Your task to perform on an android device: delete browsing data in the chrome app Image 0: 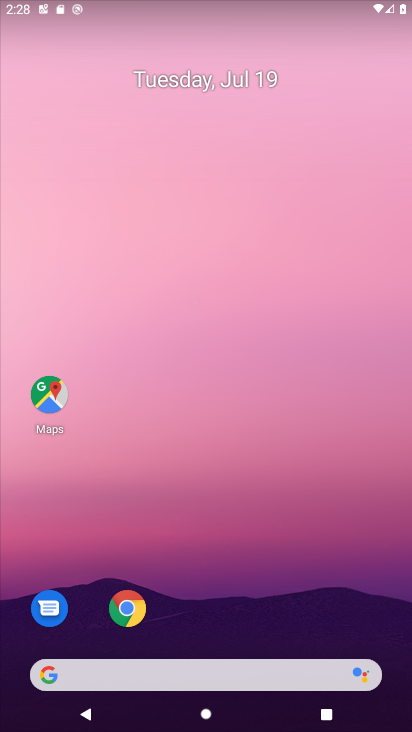
Step 0: click (124, 615)
Your task to perform on an android device: delete browsing data in the chrome app Image 1: 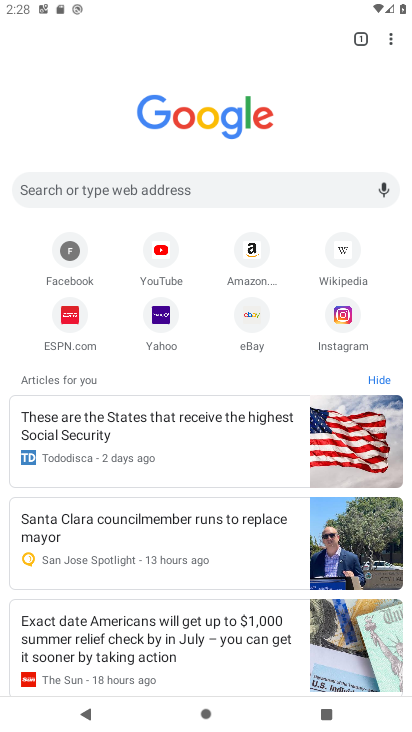
Step 1: click (390, 46)
Your task to perform on an android device: delete browsing data in the chrome app Image 2: 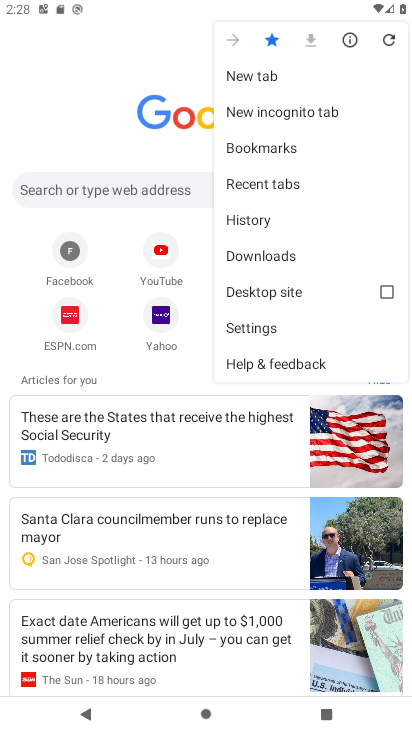
Step 2: click (238, 219)
Your task to perform on an android device: delete browsing data in the chrome app Image 3: 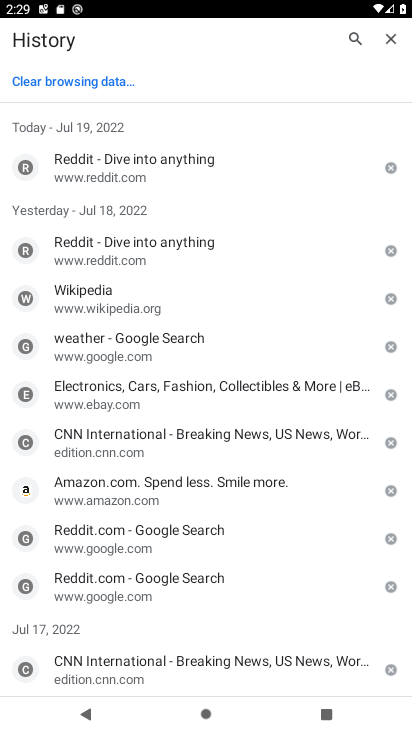
Step 3: click (78, 80)
Your task to perform on an android device: delete browsing data in the chrome app Image 4: 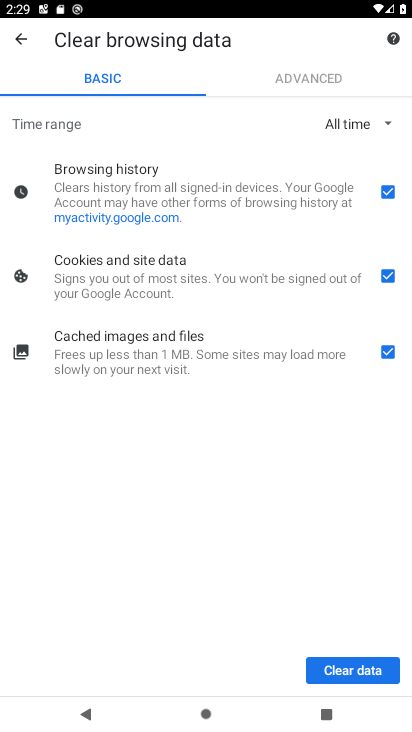
Step 4: click (365, 667)
Your task to perform on an android device: delete browsing data in the chrome app Image 5: 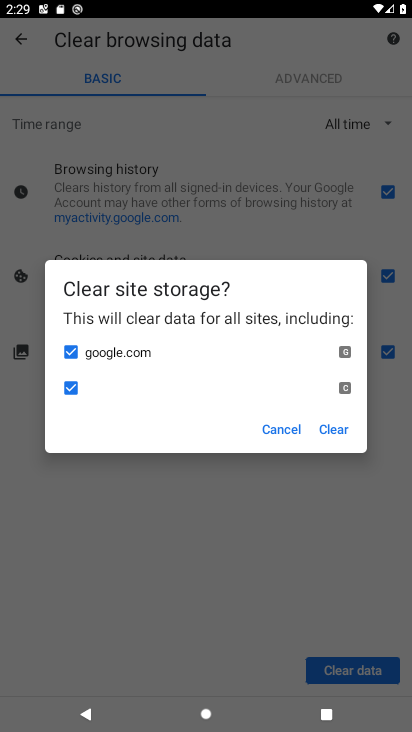
Step 5: click (328, 430)
Your task to perform on an android device: delete browsing data in the chrome app Image 6: 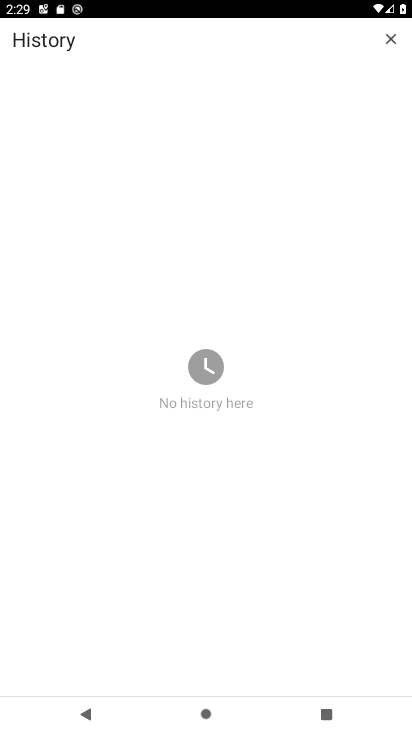
Step 6: task complete